Your task to perform on an android device: Go to Android settings Image 0: 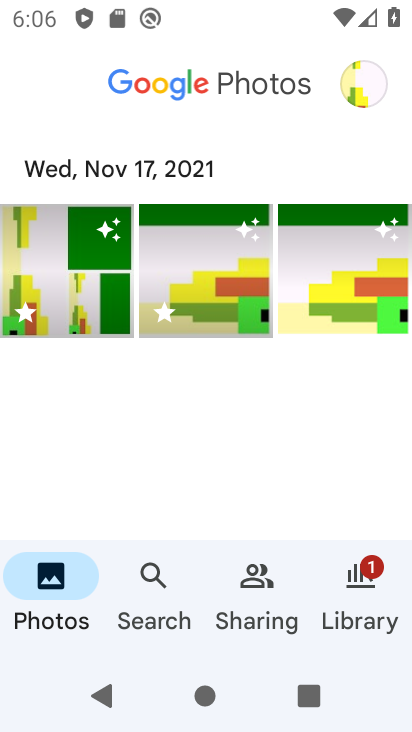
Step 0: press home button
Your task to perform on an android device: Go to Android settings Image 1: 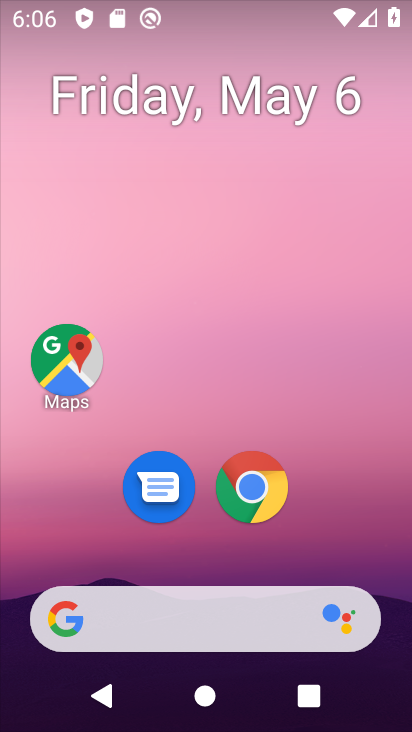
Step 1: drag from (342, 534) to (409, 174)
Your task to perform on an android device: Go to Android settings Image 2: 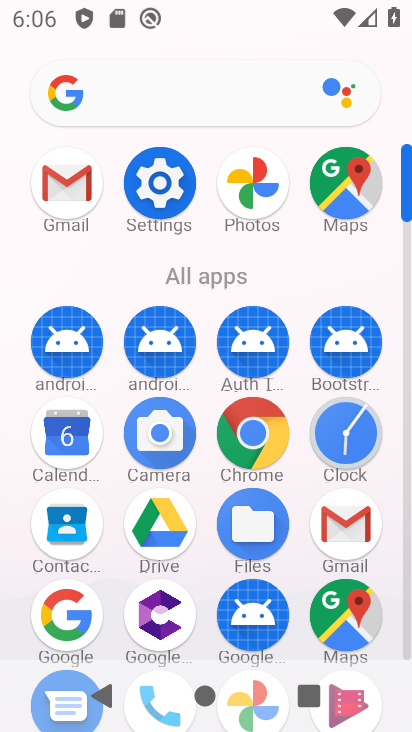
Step 2: click (150, 200)
Your task to perform on an android device: Go to Android settings Image 3: 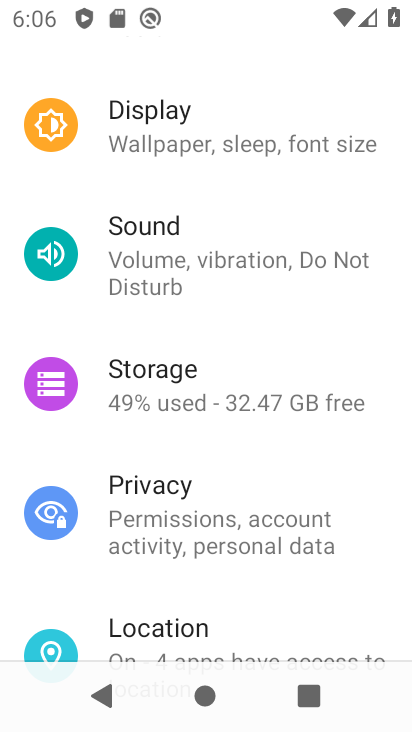
Step 3: drag from (336, 585) to (387, 170)
Your task to perform on an android device: Go to Android settings Image 4: 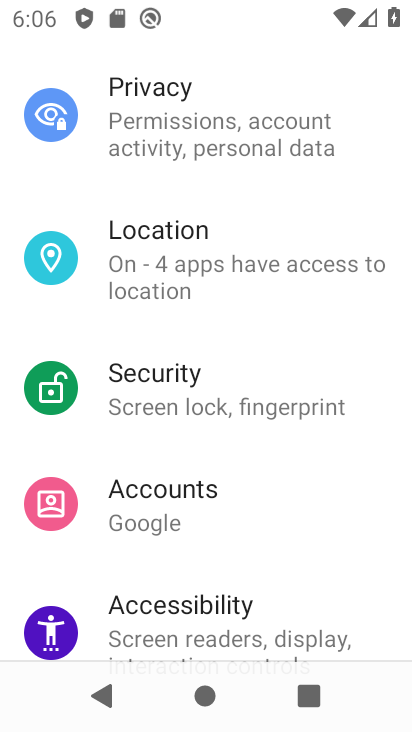
Step 4: drag from (306, 593) to (371, 123)
Your task to perform on an android device: Go to Android settings Image 5: 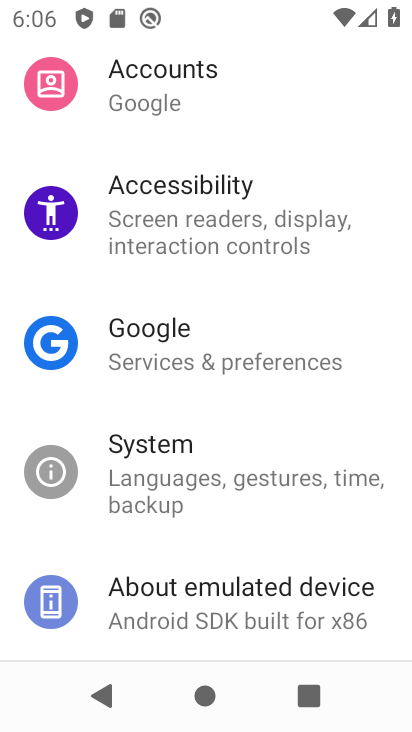
Step 5: click (280, 584)
Your task to perform on an android device: Go to Android settings Image 6: 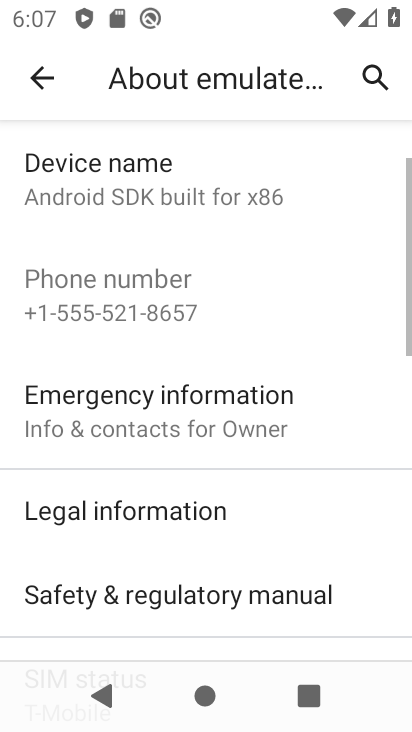
Step 6: drag from (224, 493) to (294, 187)
Your task to perform on an android device: Go to Android settings Image 7: 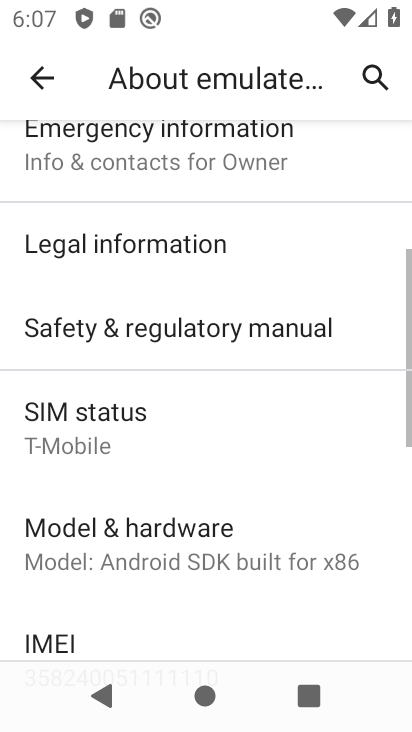
Step 7: drag from (189, 586) to (283, 233)
Your task to perform on an android device: Go to Android settings Image 8: 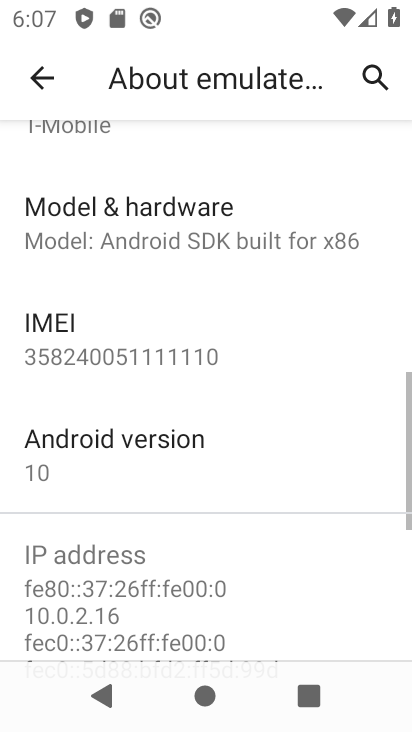
Step 8: click (156, 439)
Your task to perform on an android device: Go to Android settings Image 9: 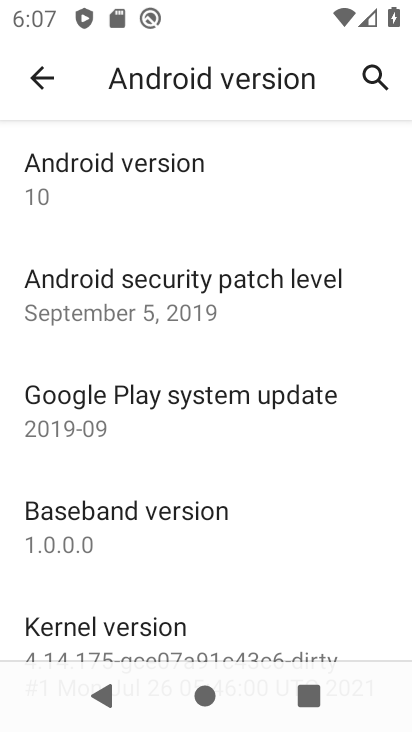
Step 9: task complete